Your task to perform on an android device: Go to calendar. Show me events next week Image 0: 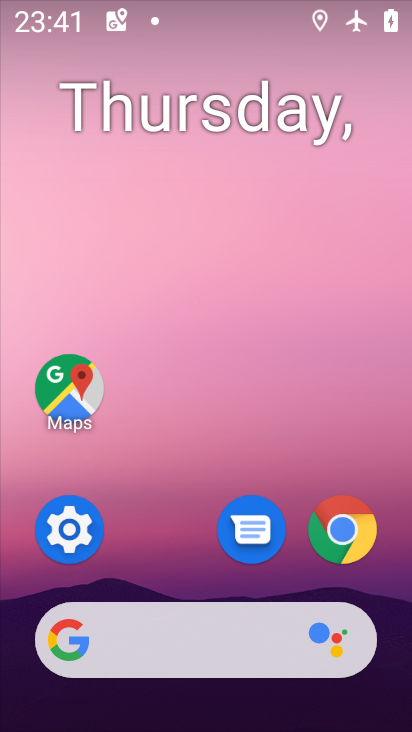
Step 0: drag from (168, 715) to (184, 120)
Your task to perform on an android device: Go to calendar. Show me events next week Image 1: 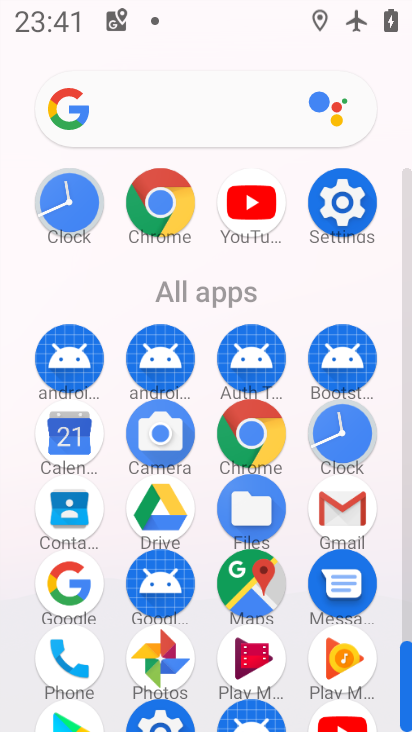
Step 1: click (75, 443)
Your task to perform on an android device: Go to calendar. Show me events next week Image 2: 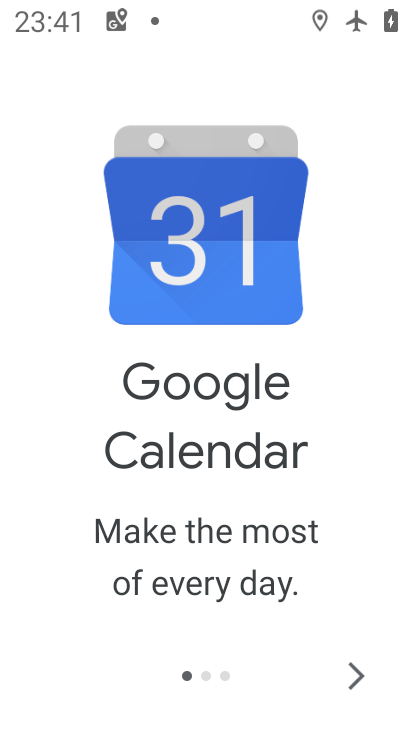
Step 2: click (346, 675)
Your task to perform on an android device: Go to calendar. Show me events next week Image 3: 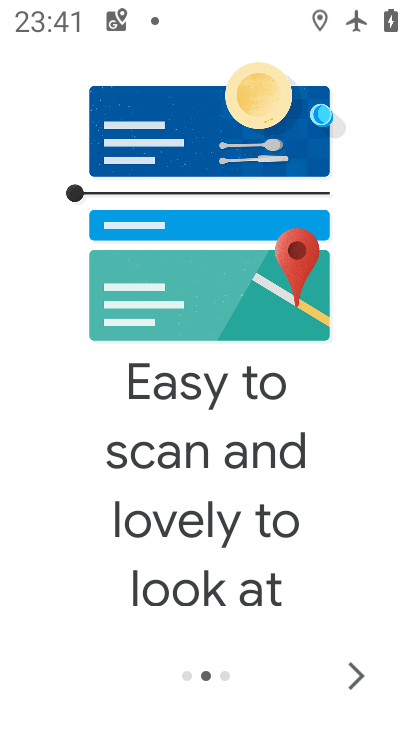
Step 3: click (346, 675)
Your task to perform on an android device: Go to calendar. Show me events next week Image 4: 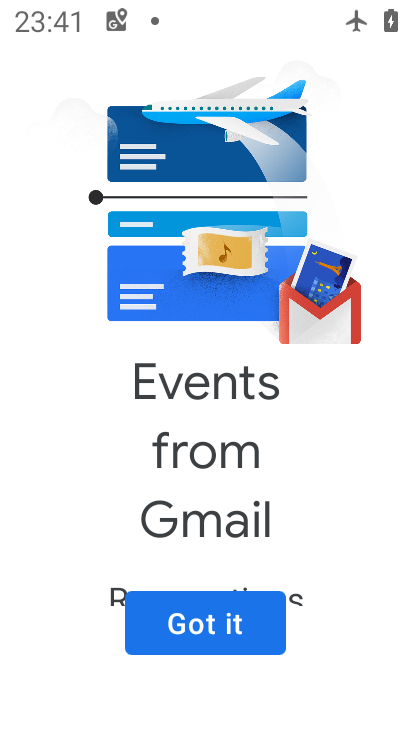
Step 4: click (183, 627)
Your task to perform on an android device: Go to calendar. Show me events next week Image 5: 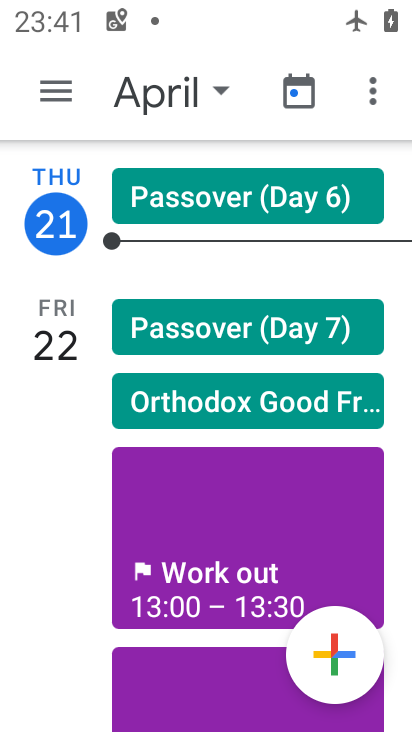
Step 5: click (160, 89)
Your task to perform on an android device: Go to calendar. Show me events next week Image 6: 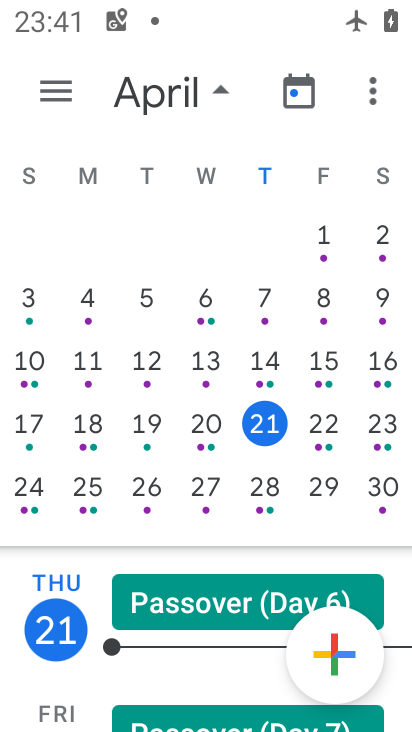
Step 6: click (38, 483)
Your task to perform on an android device: Go to calendar. Show me events next week Image 7: 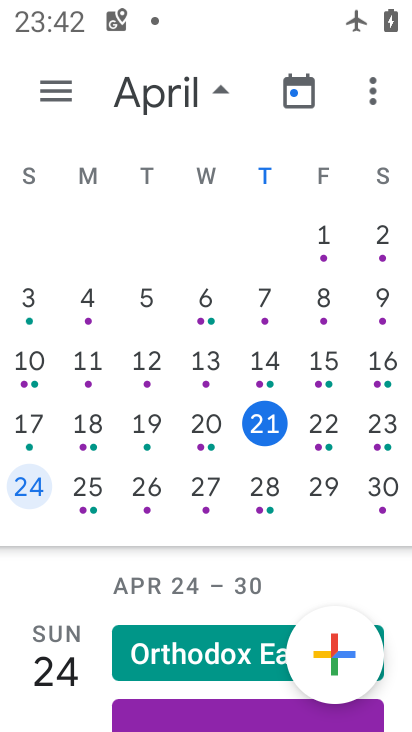
Step 7: task complete